Your task to perform on an android device: Go to internet settings Image 0: 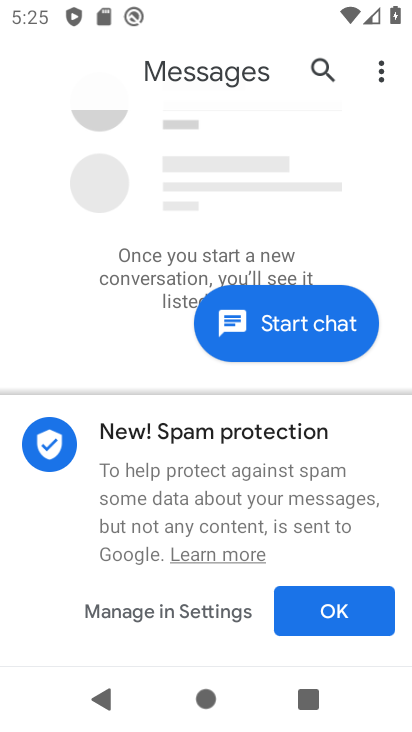
Step 0: press back button
Your task to perform on an android device: Go to internet settings Image 1: 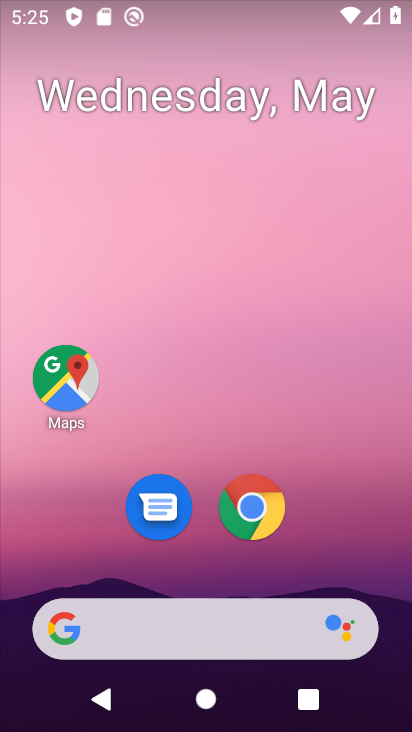
Step 1: drag from (350, 553) to (262, 7)
Your task to perform on an android device: Go to internet settings Image 2: 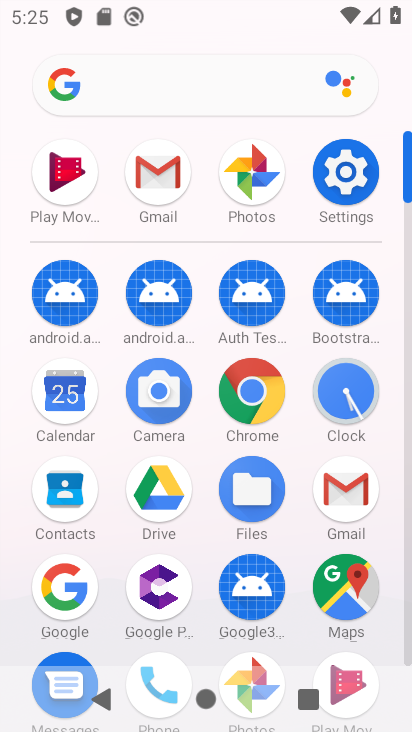
Step 2: click (346, 169)
Your task to perform on an android device: Go to internet settings Image 3: 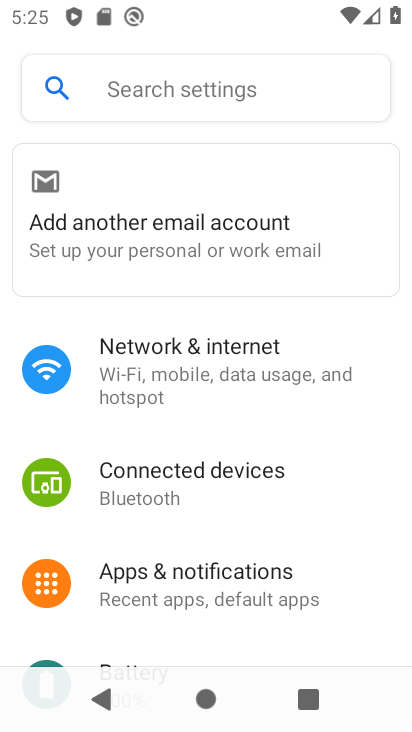
Step 3: click (267, 379)
Your task to perform on an android device: Go to internet settings Image 4: 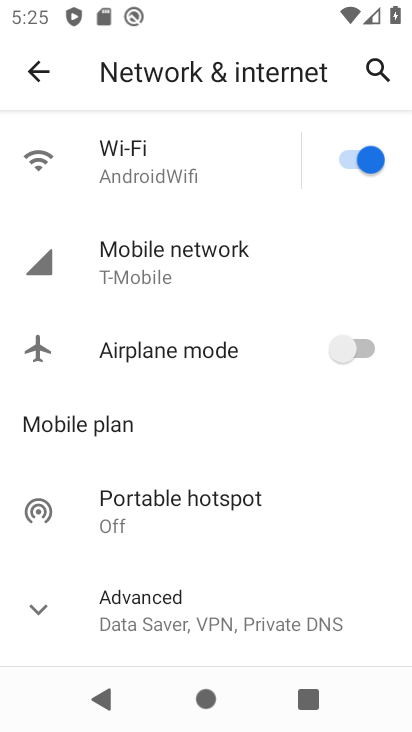
Step 4: click (119, 170)
Your task to perform on an android device: Go to internet settings Image 5: 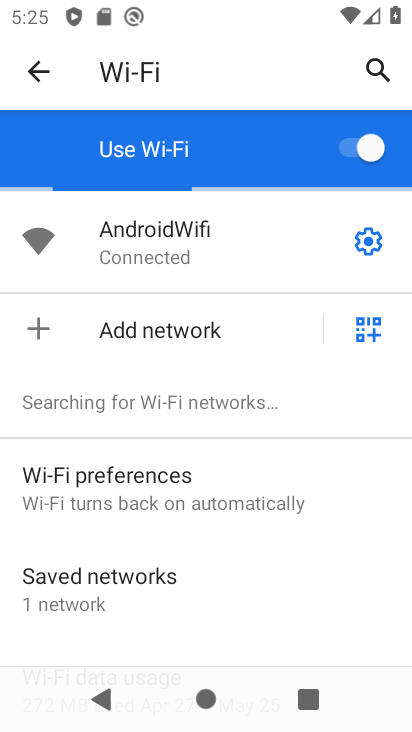
Step 5: task complete